Your task to perform on an android device: Open calendar and show me the fourth week of next month Image 0: 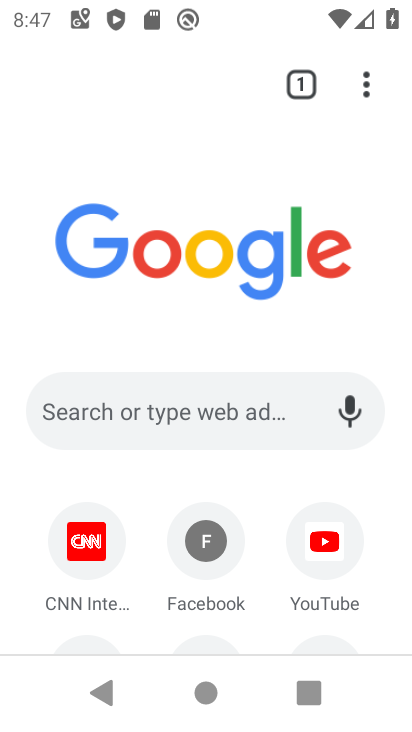
Step 0: press home button
Your task to perform on an android device: Open calendar and show me the fourth week of next month Image 1: 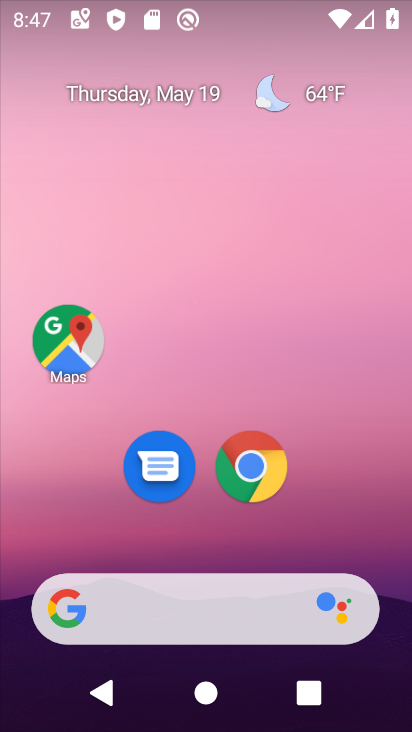
Step 1: drag from (390, 624) to (269, 1)
Your task to perform on an android device: Open calendar and show me the fourth week of next month Image 2: 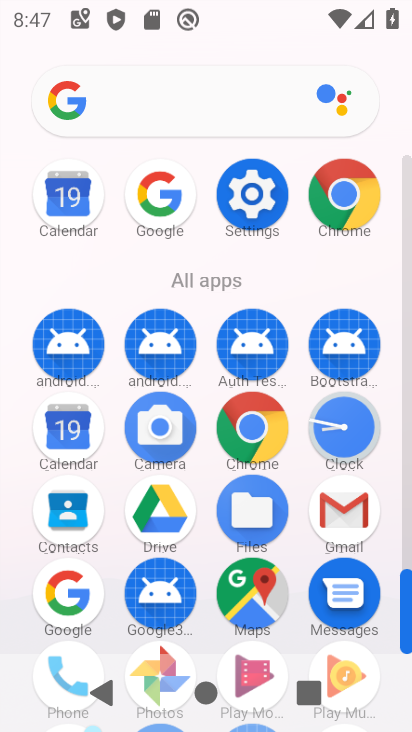
Step 2: click (86, 437)
Your task to perform on an android device: Open calendar and show me the fourth week of next month Image 3: 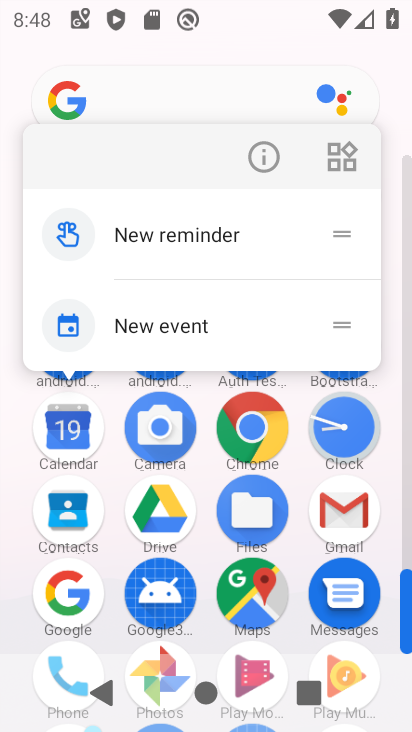
Step 3: click (64, 440)
Your task to perform on an android device: Open calendar and show me the fourth week of next month Image 4: 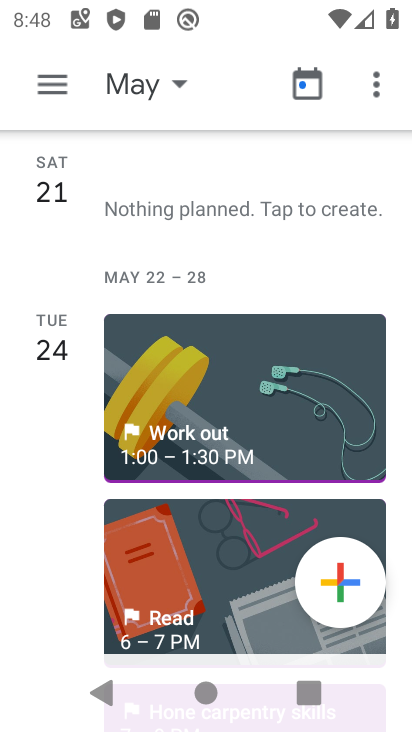
Step 4: click (134, 88)
Your task to perform on an android device: Open calendar and show me the fourth week of next month Image 5: 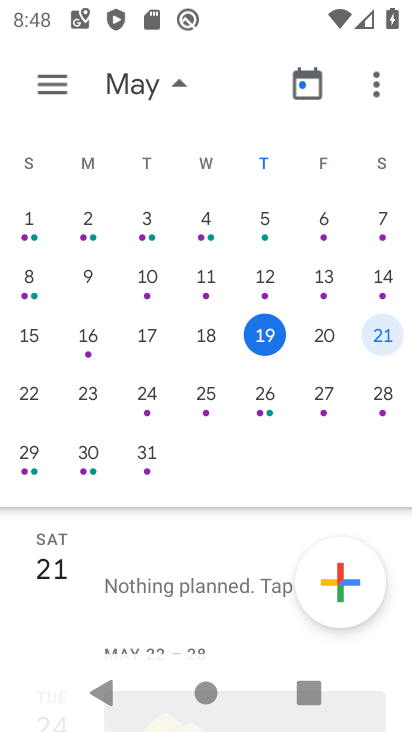
Step 5: drag from (326, 344) to (2, 282)
Your task to perform on an android device: Open calendar and show me the fourth week of next month Image 6: 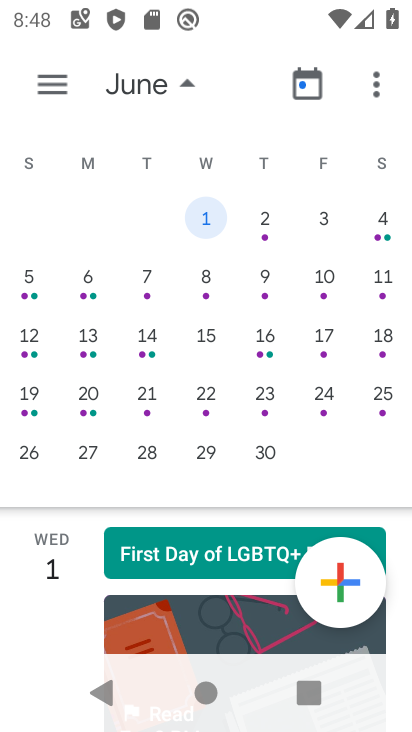
Step 6: click (82, 446)
Your task to perform on an android device: Open calendar and show me the fourth week of next month Image 7: 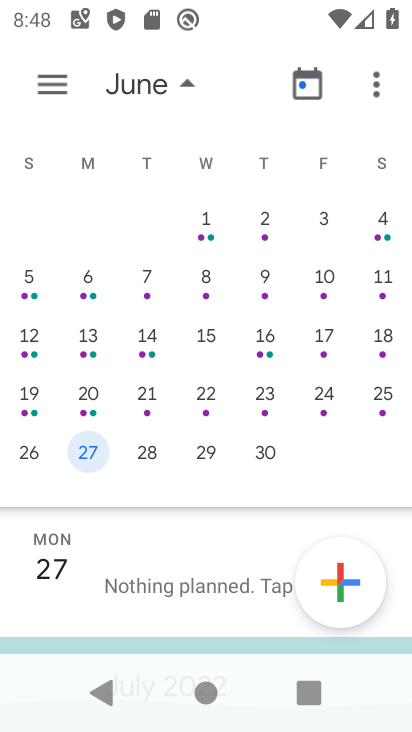
Step 7: task complete